Your task to perform on an android device: Toggle the flashlight Image 0: 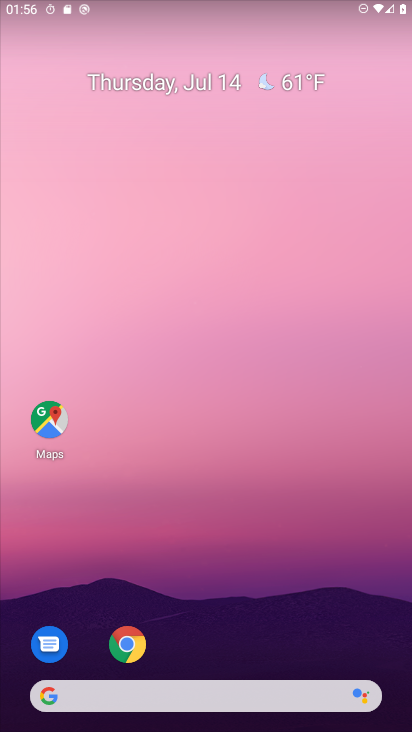
Step 0: drag from (281, 614) to (330, 42)
Your task to perform on an android device: Toggle the flashlight Image 1: 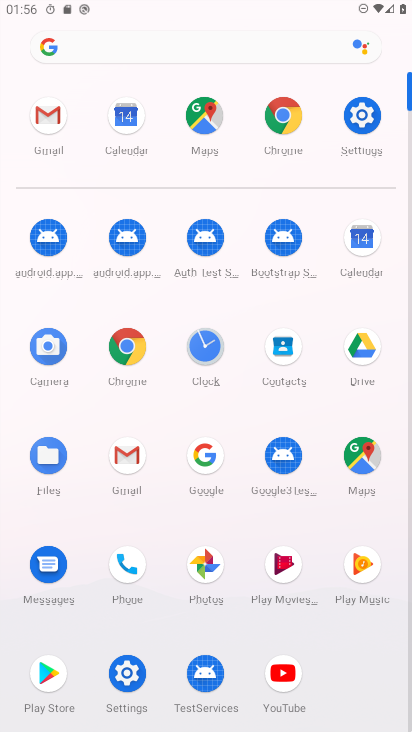
Step 1: click (371, 110)
Your task to perform on an android device: Toggle the flashlight Image 2: 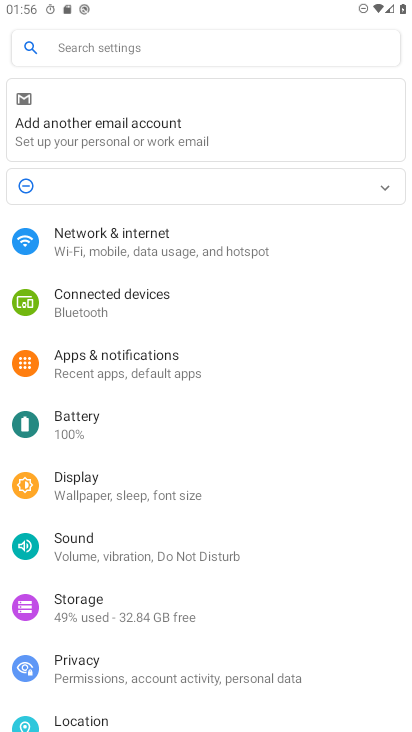
Step 2: click (104, 475)
Your task to perform on an android device: Toggle the flashlight Image 3: 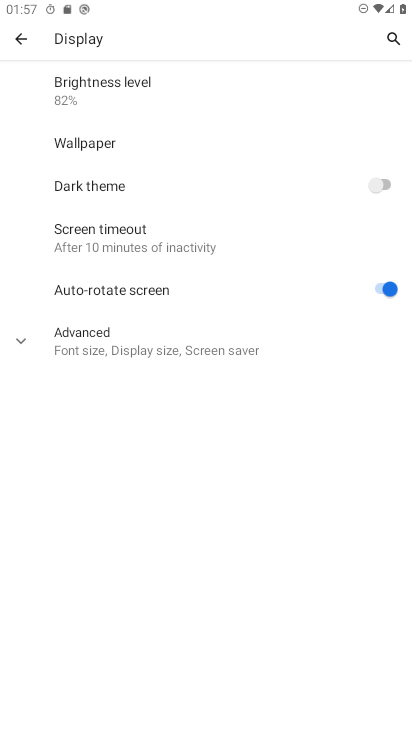
Step 3: click (98, 235)
Your task to perform on an android device: Toggle the flashlight Image 4: 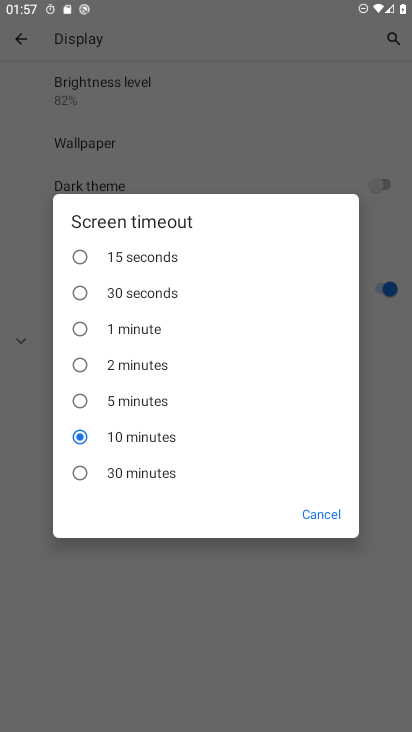
Step 4: task complete